Your task to perform on an android device: Open the phone app and click the voicemail tab. Image 0: 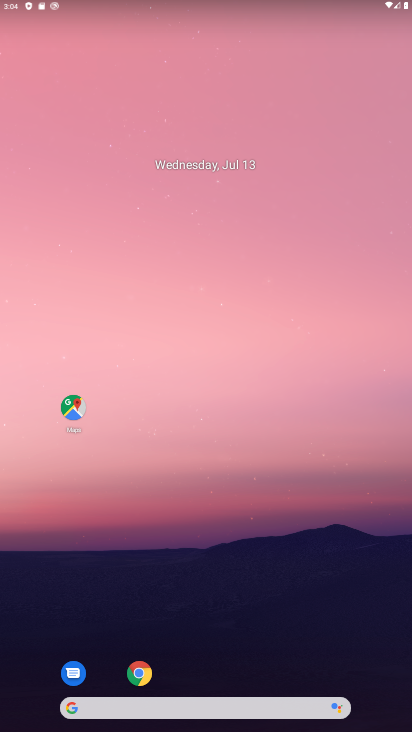
Step 0: drag from (240, 678) to (240, 122)
Your task to perform on an android device: Open the phone app and click the voicemail tab. Image 1: 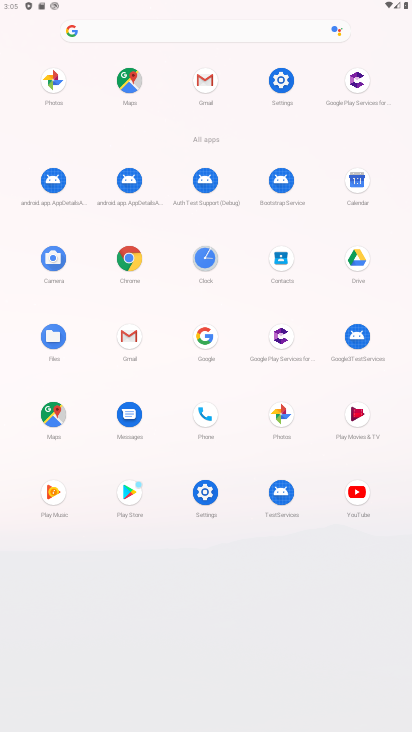
Step 1: click (203, 414)
Your task to perform on an android device: Open the phone app and click the voicemail tab. Image 2: 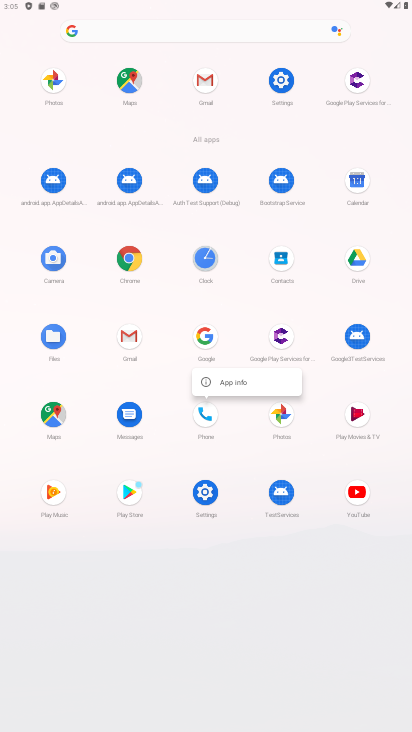
Step 2: click (198, 416)
Your task to perform on an android device: Open the phone app and click the voicemail tab. Image 3: 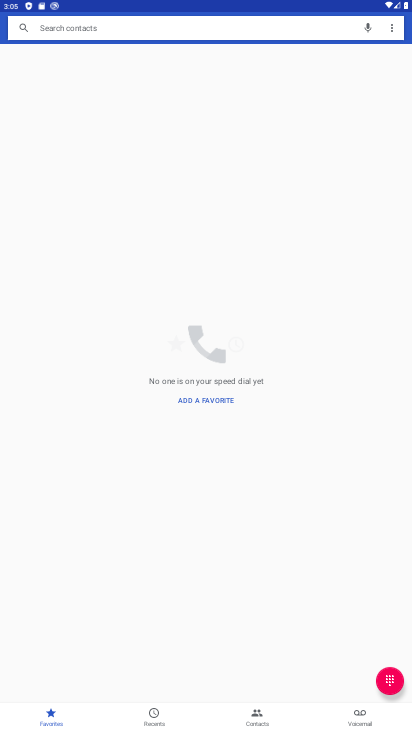
Step 3: click (355, 716)
Your task to perform on an android device: Open the phone app and click the voicemail tab. Image 4: 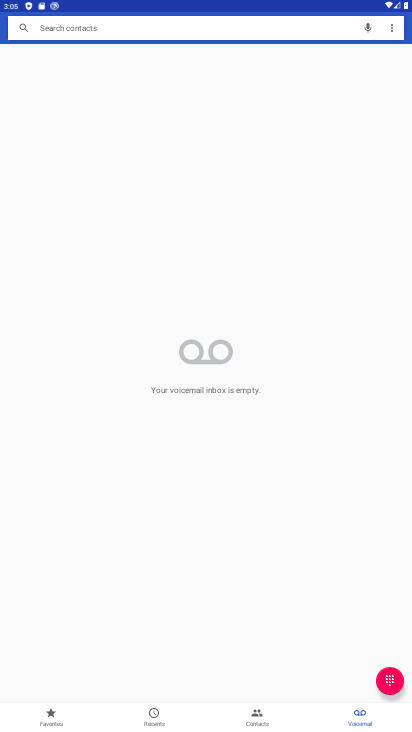
Step 4: task complete